Your task to perform on an android device: Open Yahoo.com Image 0: 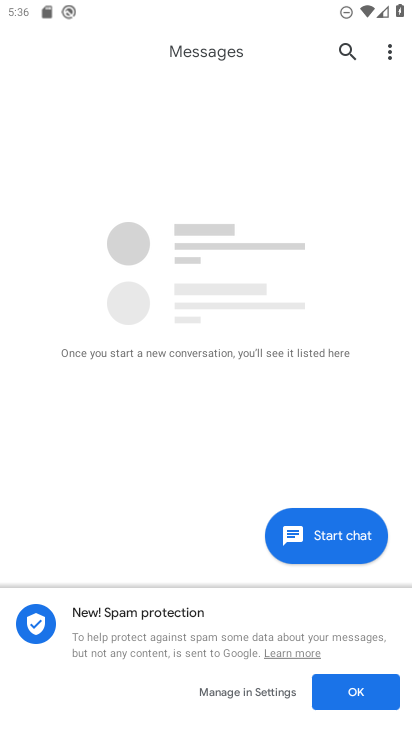
Step 0: press home button
Your task to perform on an android device: Open Yahoo.com Image 1: 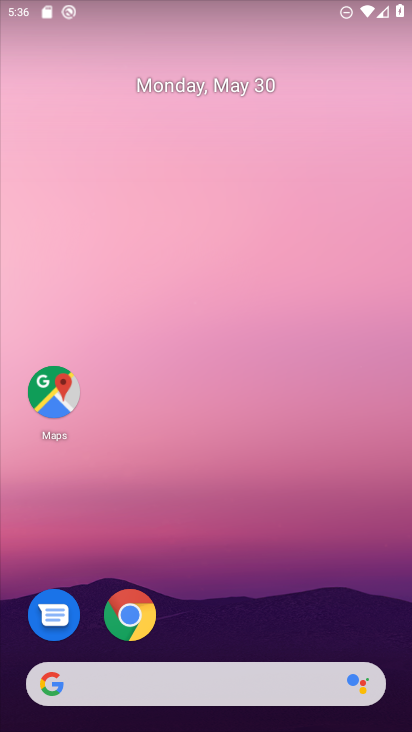
Step 1: press home button
Your task to perform on an android device: Open Yahoo.com Image 2: 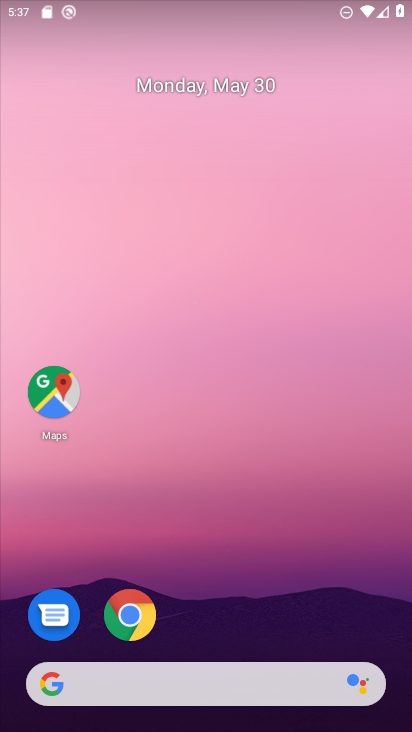
Step 2: click (133, 616)
Your task to perform on an android device: Open Yahoo.com Image 3: 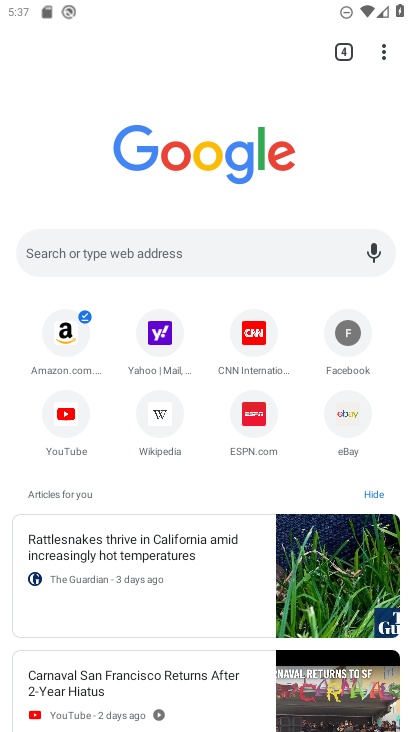
Step 3: click (157, 330)
Your task to perform on an android device: Open Yahoo.com Image 4: 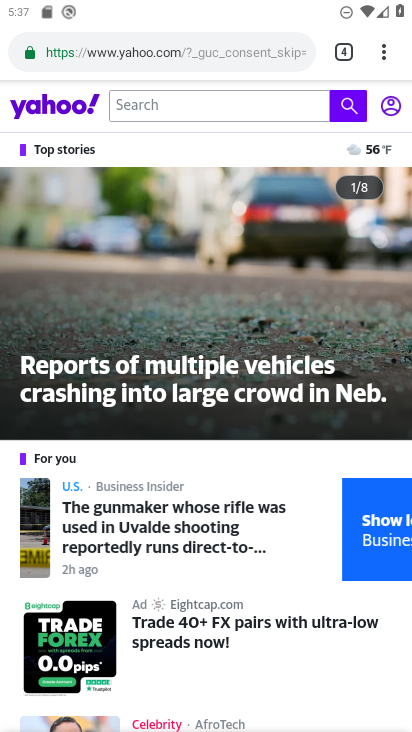
Step 4: task complete